Your task to perform on an android device: Open ESPN.com Image 0: 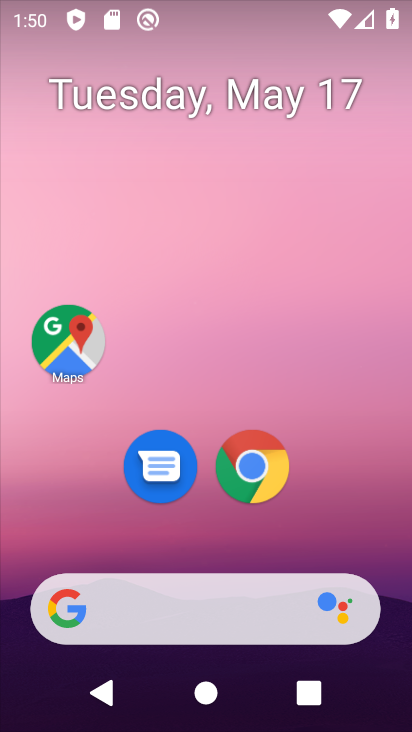
Step 0: click (245, 475)
Your task to perform on an android device: Open ESPN.com Image 1: 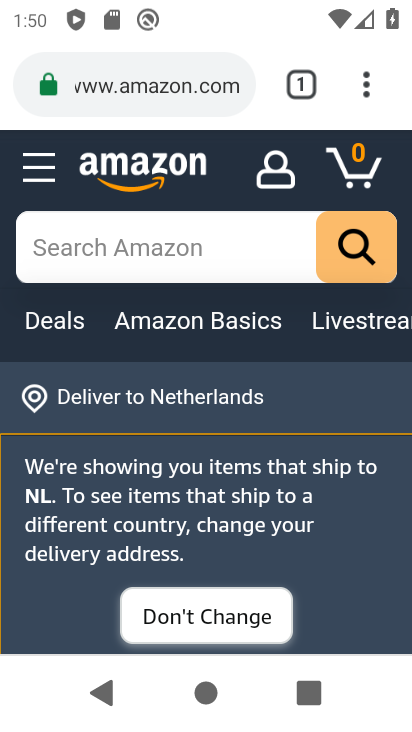
Step 1: drag from (377, 81) to (330, 173)
Your task to perform on an android device: Open ESPN.com Image 2: 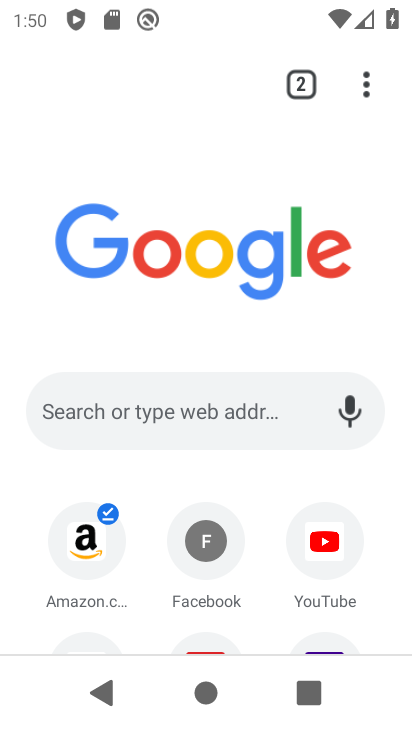
Step 2: drag from (159, 626) to (233, 402)
Your task to perform on an android device: Open ESPN.com Image 3: 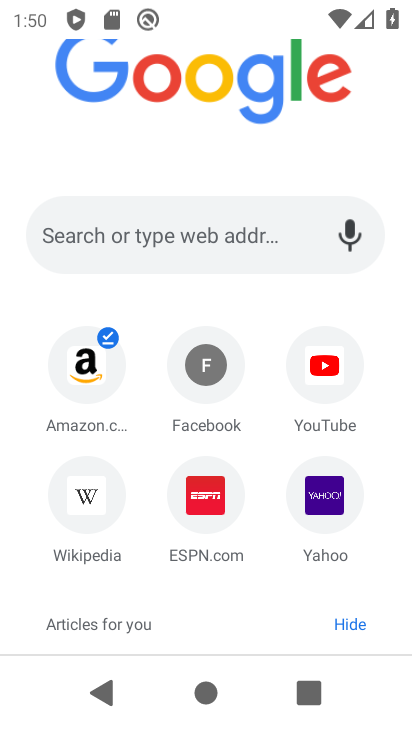
Step 3: click (213, 495)
Your task to perform on an android device: Open ESPN.com Image 4: 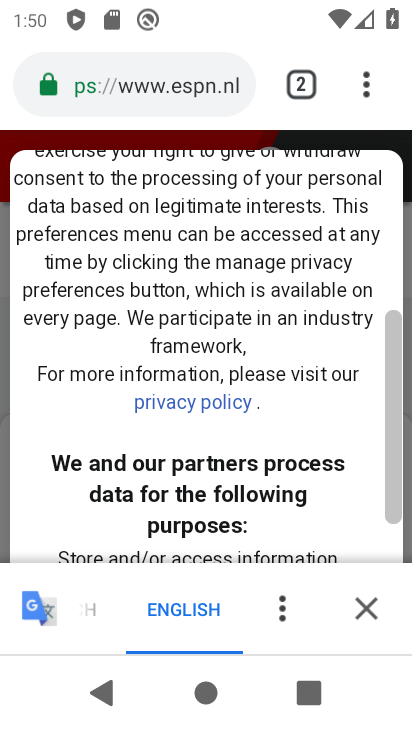
Step 4: click (386, 625)
Your task to perform on an android device: Open ESPN.com Image 5: 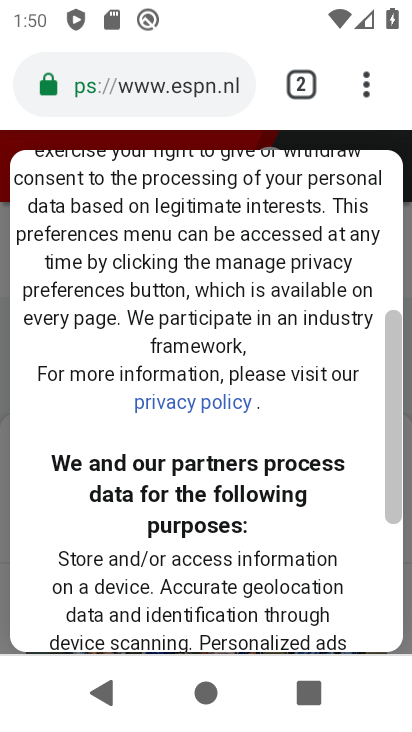
Step 5: drag from (238, 585) to (362, 141)
Your task to perform on an android device: Open ESPN.com Image 6: 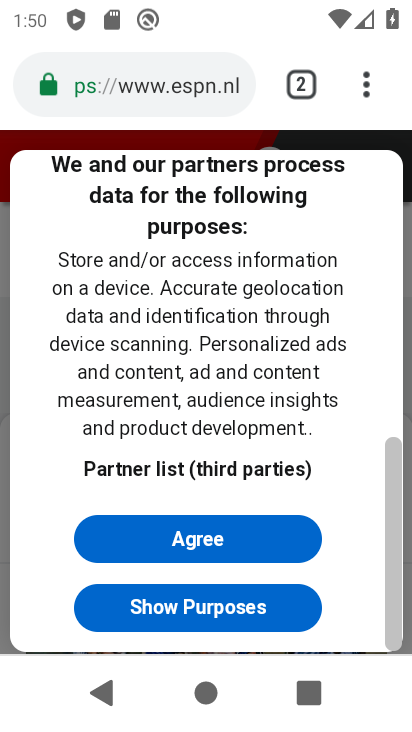
Step 6: click (247, 545)
Your task to perform on an android device: Open ESPN.com Image 7: 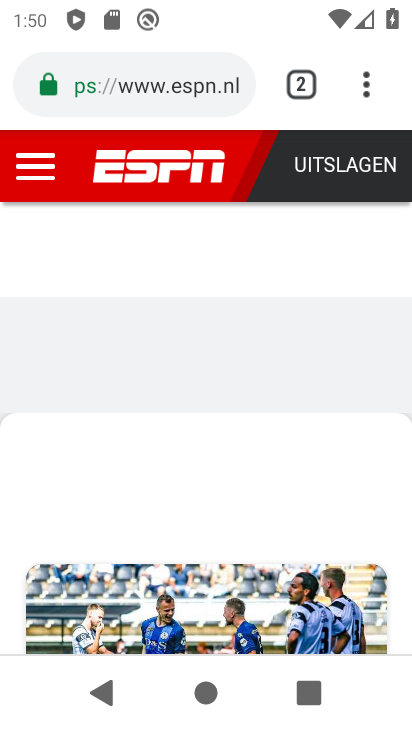
Step 7: task complete